Your task to perform on an android device: Open settings Image 0: 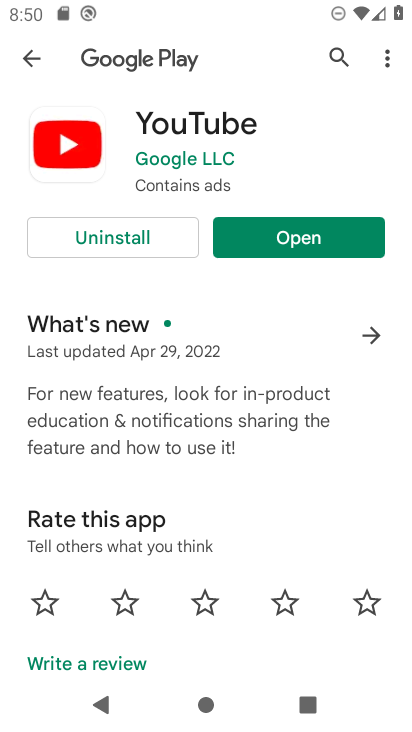
Step 0: press home button
Your task to perform on an android device: Open settings Image 1: 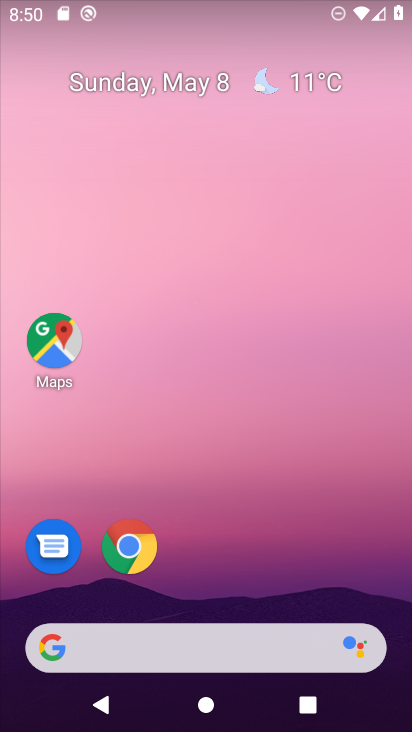
Step 1: drag from (258, 549) to (247, 55)
Your task to perform on an android device: Open settings Image 2: 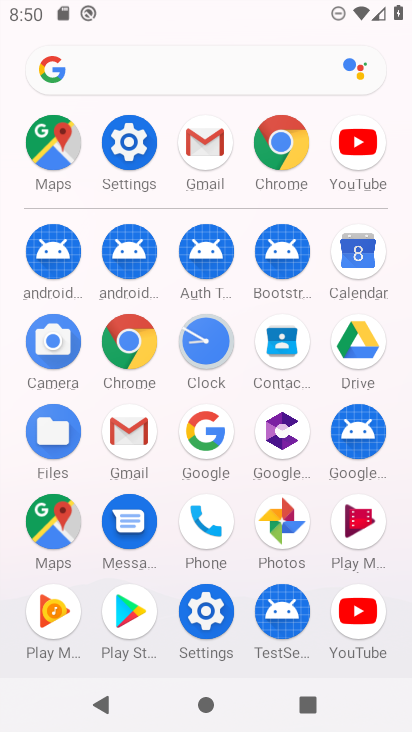
Step 2: click (126, 144)
Your task to perform on an android device: Open settings Image 3: 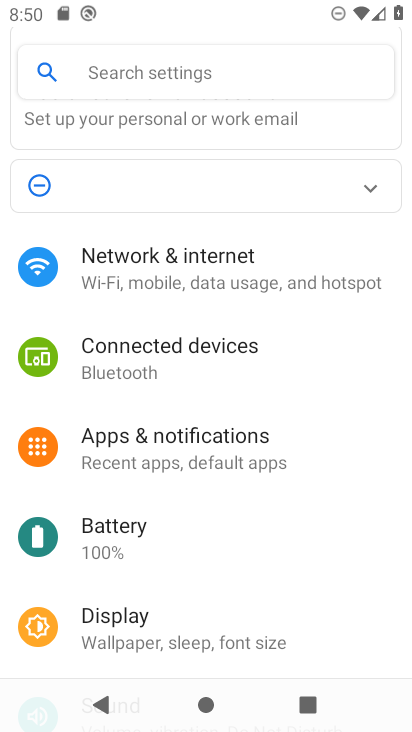
Step 3: task complete